Your task to perform on an android device: turn on showing notifications on the lock screen Image 0: 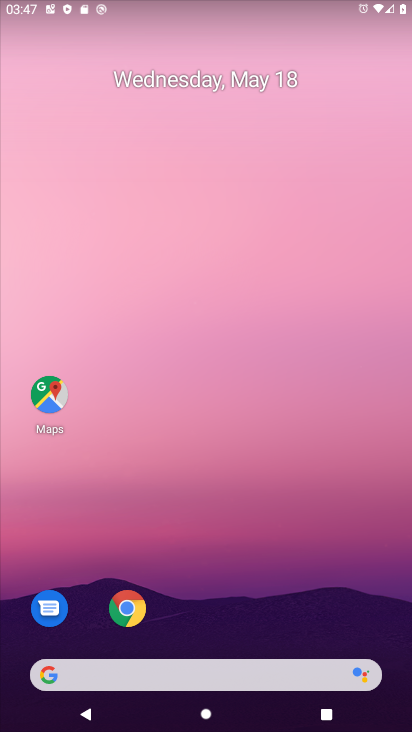
Step 0: drag from (213, 631) to (183, 186)
Your task to perform on an android device: turn on showing notifications on the lock screen Image 1: 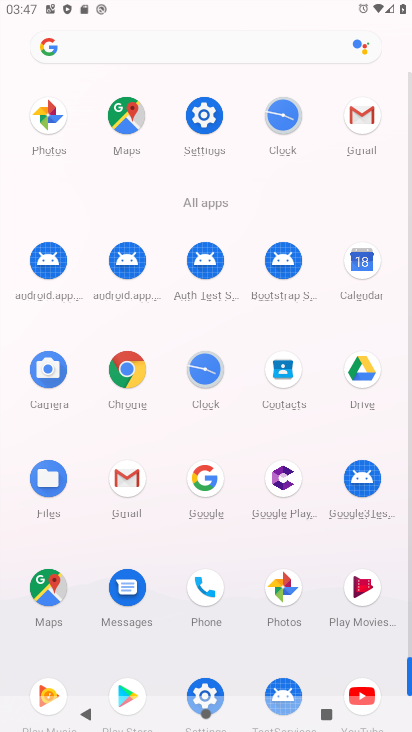
Step 1: click (192, 122)
Your task to perform on an android device: turn on showing notifications on the lock screen Image 2: 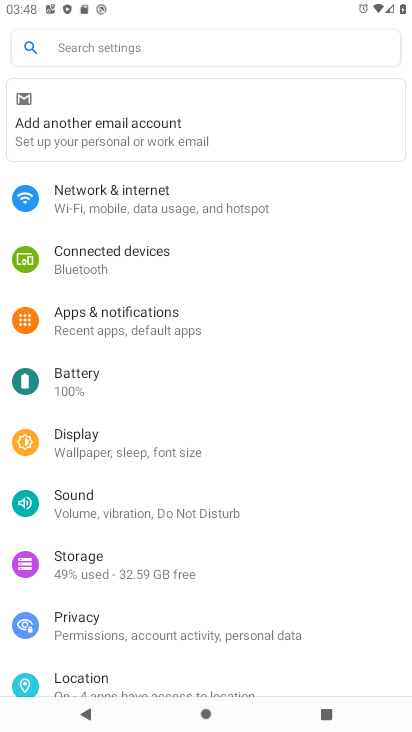
Step 2: click (177, 337)
Your task to perform on an android device: turn on showing notifications on the lock screen Image 3: 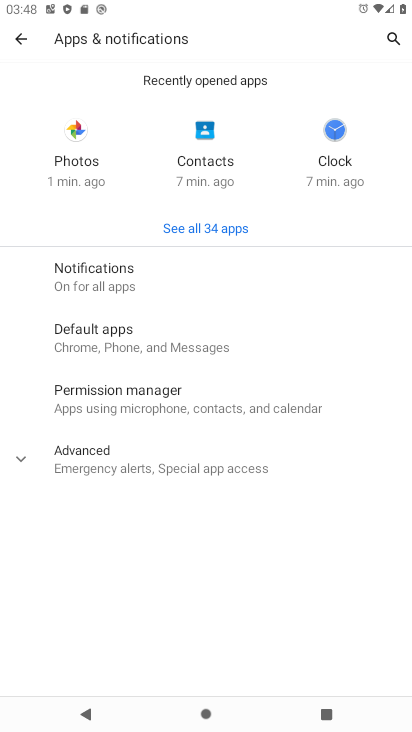
Step 3: click (127, 277)
Your task to perform on an android device: turn on showing notifications on the lock screen Image 4: 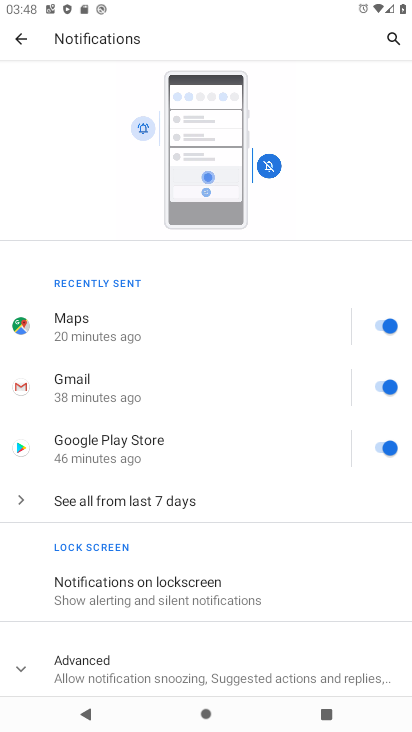
Step 4: click (176, 585)
Your task to perform on an android device: turn on showing notifications on the lock screen Image 5: 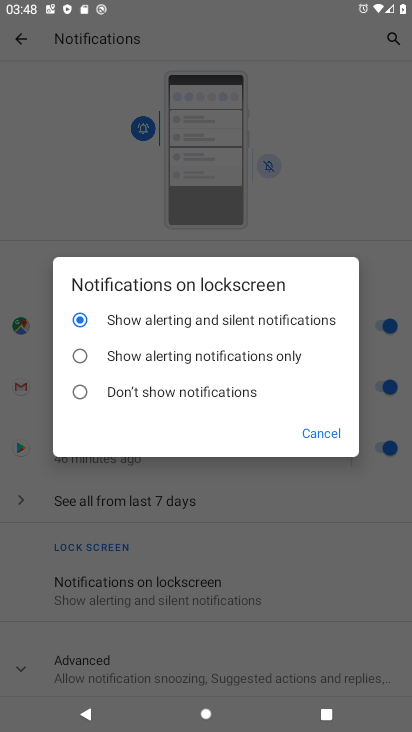
Step 5: task complete